Your task to perform on an android device: Go to sound settings Image 0: 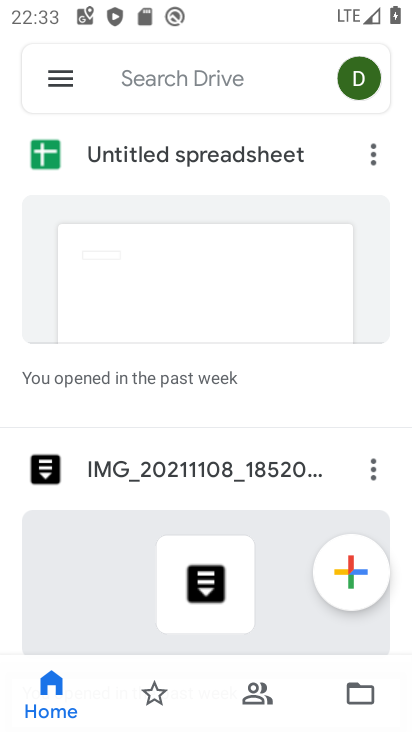
Step 0: press home button
Your task to perform on an android device: Go to sound settings Image 1: 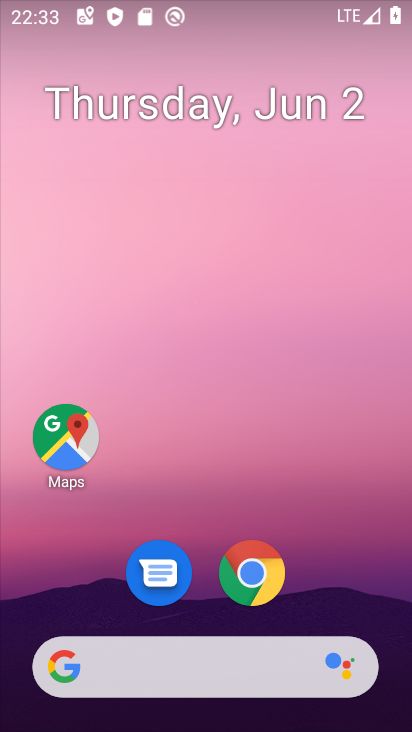
Step 1: drag from (317, 596) to (324, 130)
Your task to perform on an android device: Go to sound settings Image 2: 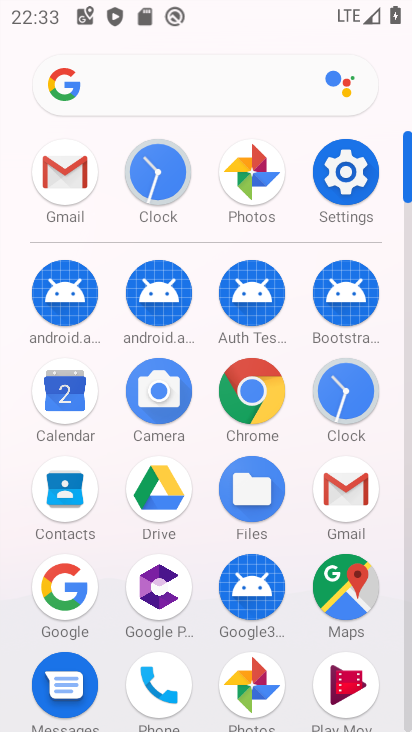
Step 2: click (340, 163)
Your task to perform on an android device: Go to sound settings Image 3: 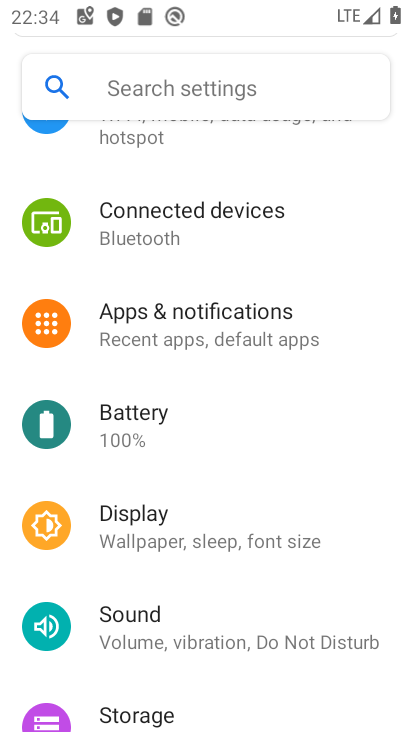
Step 3: click (171, 621)
Your task to perform on an android device: Go to sound settings Image 4: 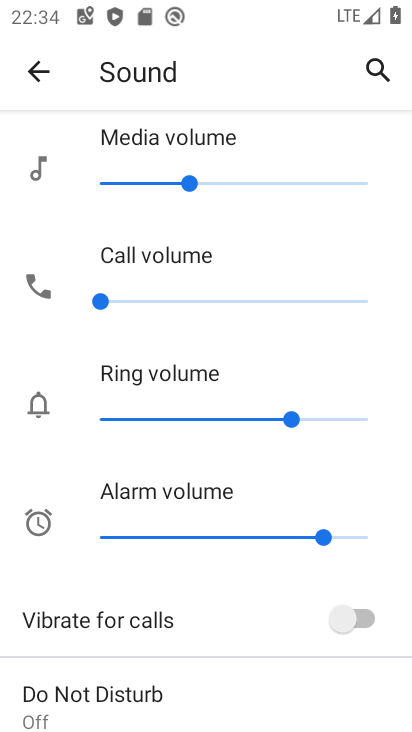
Step 4: task complete